Your task to perform on an android device: open sync settings in chrome Image 0: 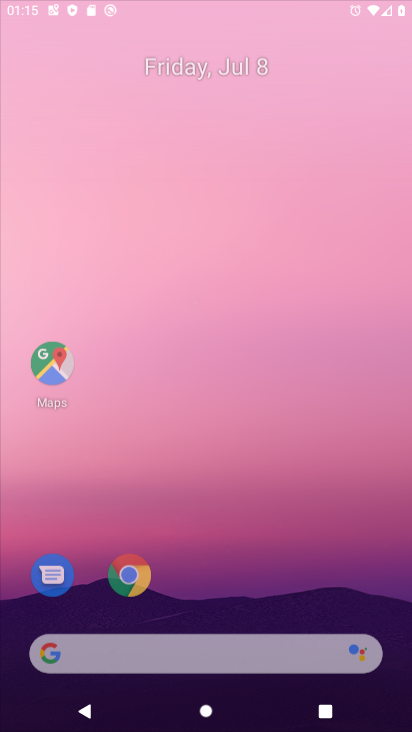
Step 0: press home button
Your task to perform on an android device: open sync settings in chrome Image 1: 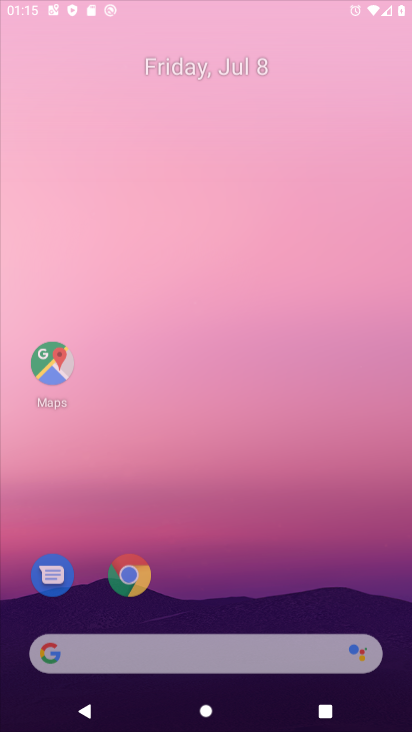
Step 1: click (222, 60)
Your task to perform on an android device: open sync settings in chrome Image 2: 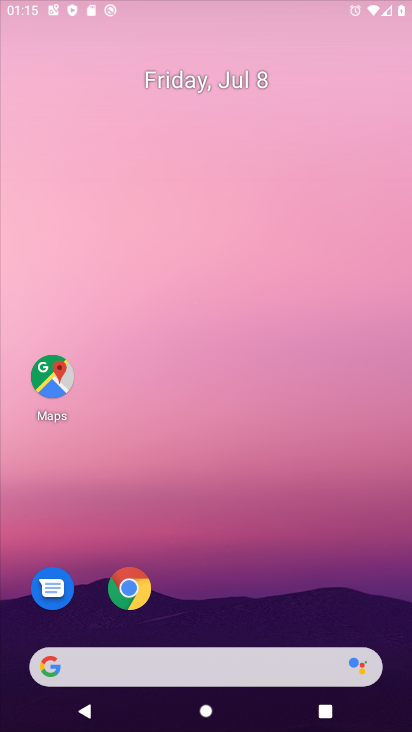
Step 2: drag from (200, 619) to (228, 96)
Your task to perform on an android device: open sync settings in chrome Image 3: 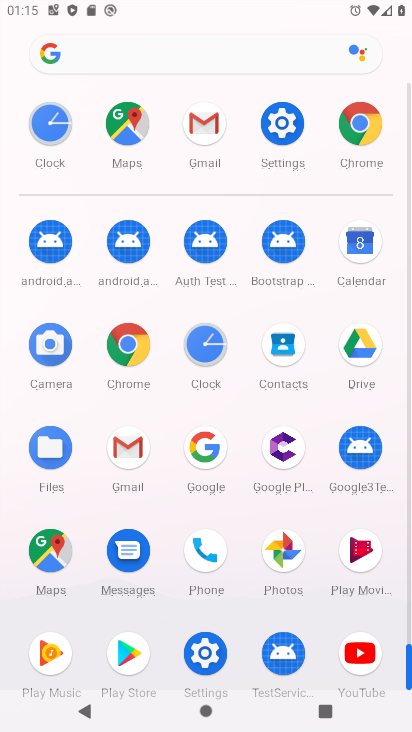
Step 3: click (361, 125)
Your task to perform on an android device: open sync settings in chrome Image 4: 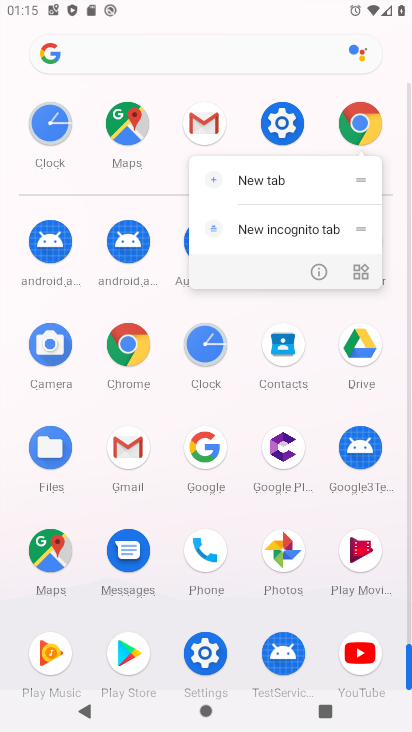
Step 4: click (315, 274)
Your task to perform on an android device: open sync settings in chrome Image 5: 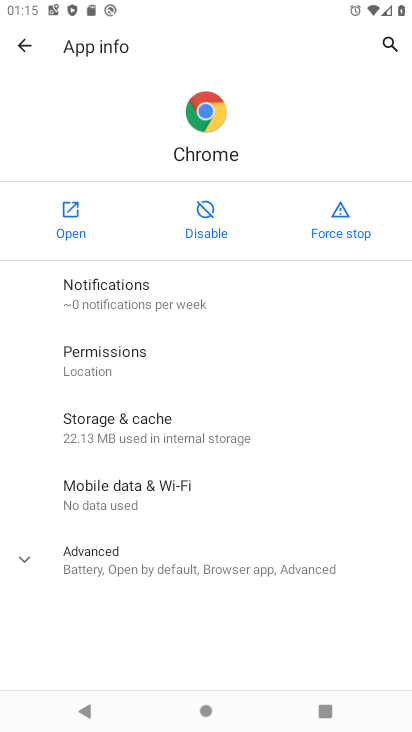
Step 5: click (63, 215)
Your task to perform on an android device: open sync settings in chrome Image 6: 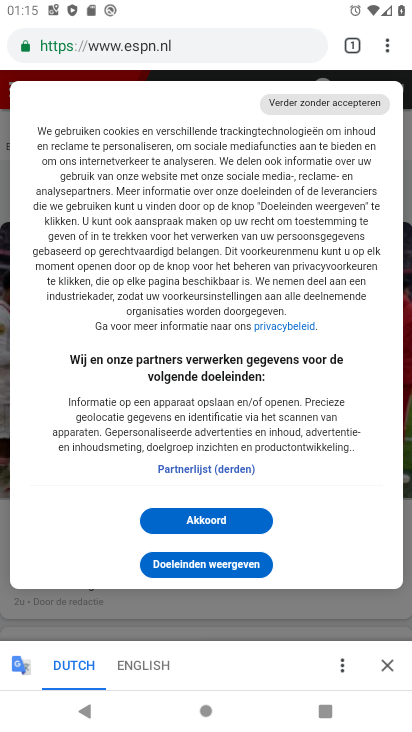
Step 6: click (390, 44)
Your task to perform on an android device: open sync settings in chrome Image 7: 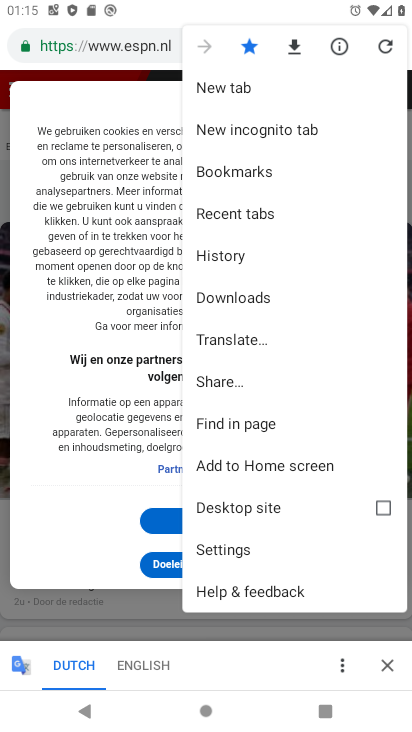
Step 7: click (253, 546)
Your task to perform on an android device: open sync settings in chrome Image 8: 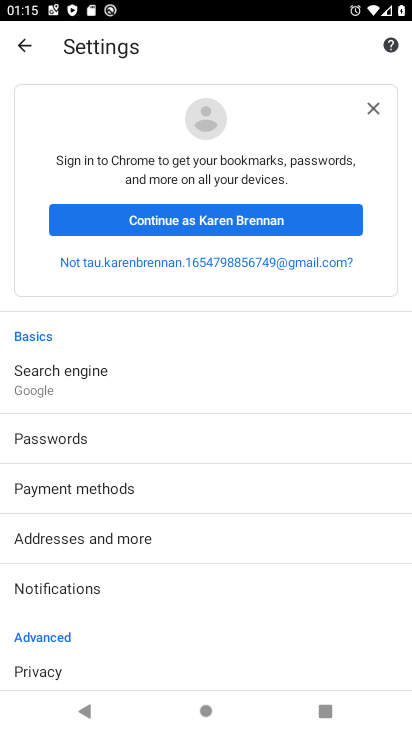
Step 8: drag from (147, 550) to (173, 73)
Your task to perform on an android device: open sync settings in chrome Image 9: 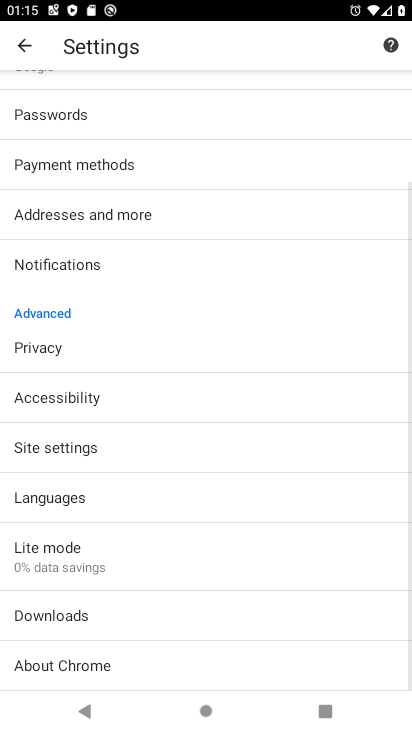
Step 9: drag from (109, 578) to (157, 233)
Your task to perform on an android device: open sync settings in chrome Image 10: 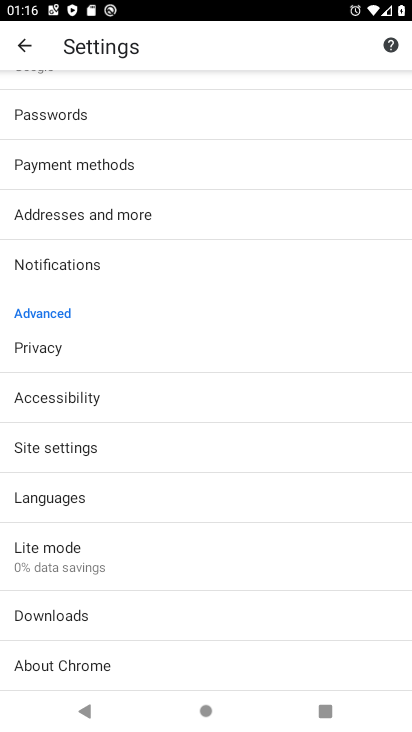
Step 10: click (82, 409)
Your task to perform on an android device: open sync settings in chrome Image 11: 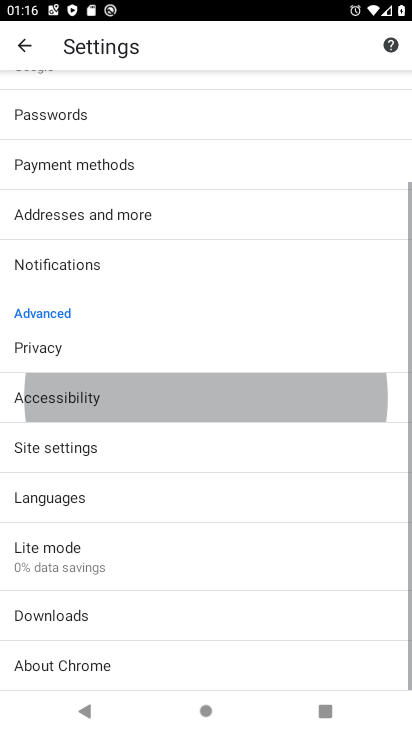
Step 11: drag from (82, 409) to (72, 541)
Your task to perform on an android device: open sync settings in chrome Image 12: 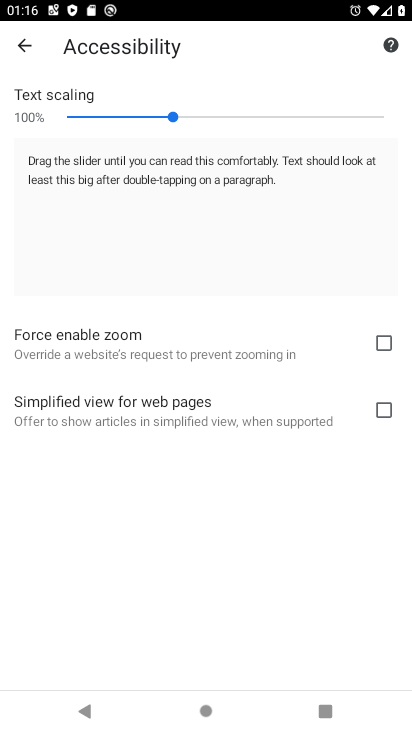
Step 12: click (21, 41)
Your task to perform on an android device: open sync settings in chrome Image 13: 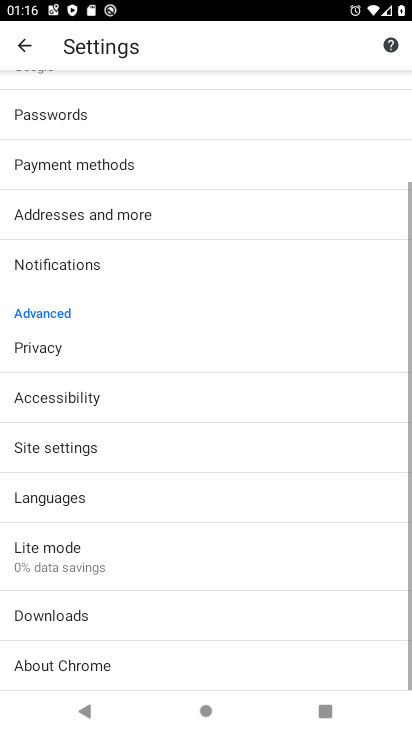
Step 13: click (94, 456)
Your task to perform on an android device: open sync settings in chrome Image 14: 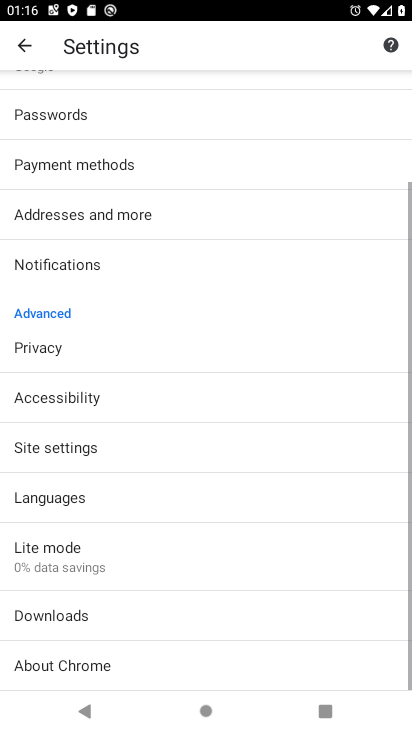
Step 14: click (93, 455)
Your task to perform on an android device: open sync settings in chrome Image 15: 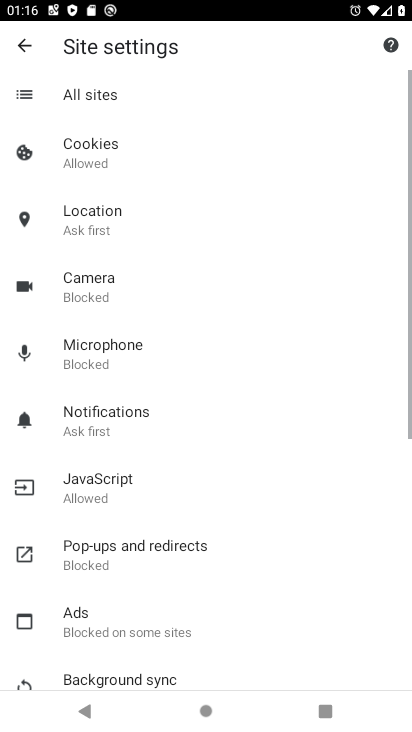
Step 15: drag from (95, 452) to (97, 321)
Your task to perform on an android device: open sync settings in chrome Image 16: 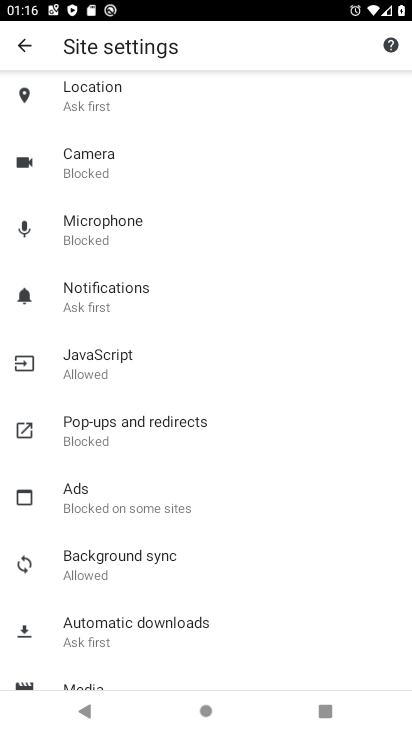
Step 16: click (135, 366)
Your task to perform on an android device: open sync settings in chrome Image 17: 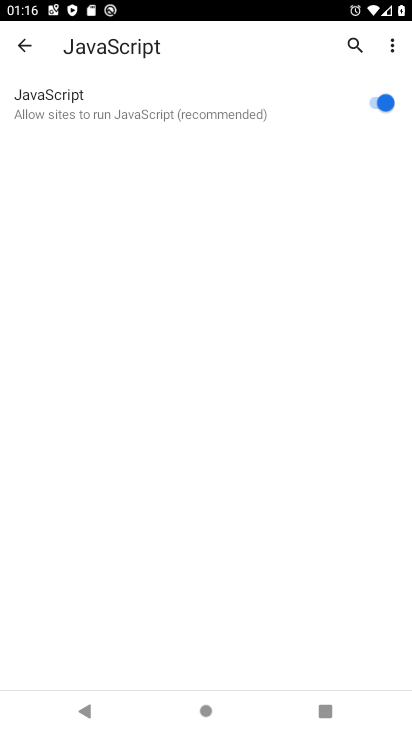
Step 17: drag from (241, 390) to (228, 198)
Your task to perform on an android device: open sync settings in chrome Image 18: 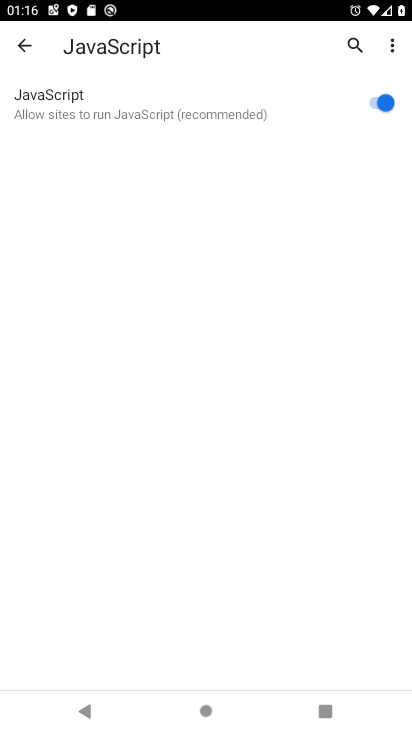
Step 18: drag from (266, 438) to (246, 176)
Your task to perform on an android device: open sync settings in chrome Image 19: 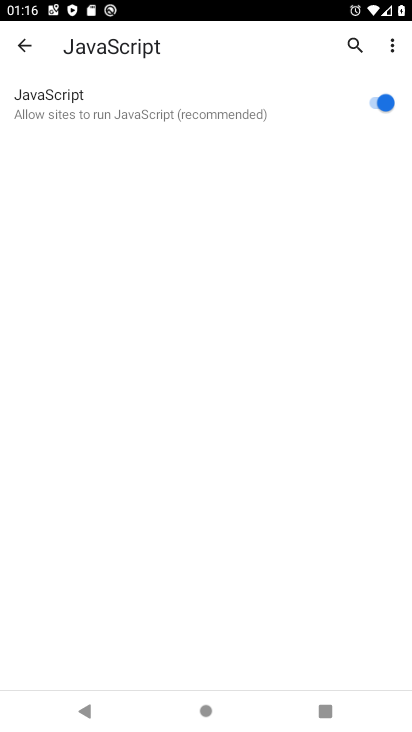
Step 19: click (17, 46)
Your task to perform on an android device: open sync settings in chrome Image 20: 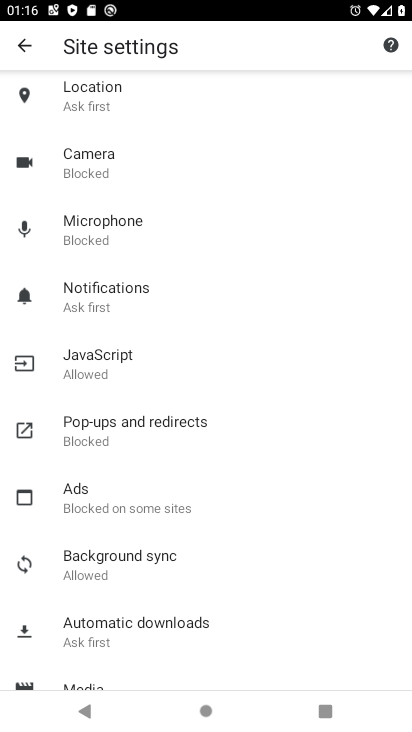
Step 20: click (127, 550)
Your task to perform on an android device: open sync settings in chrome Image 21: 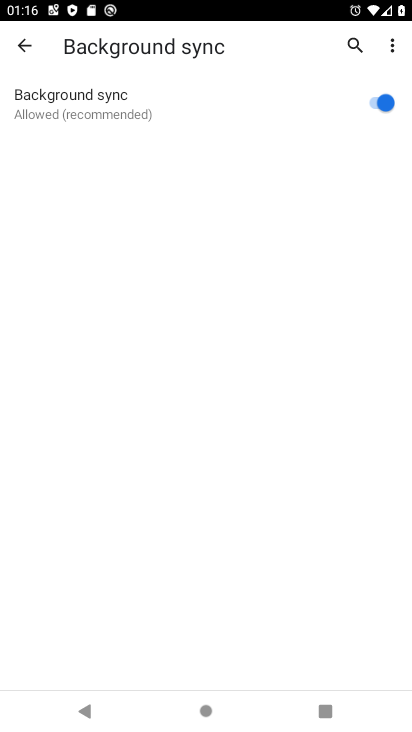
Step 21: task complete